Your task to perform on an android device: Open calendar and show me the fourth week of next month Image 0: 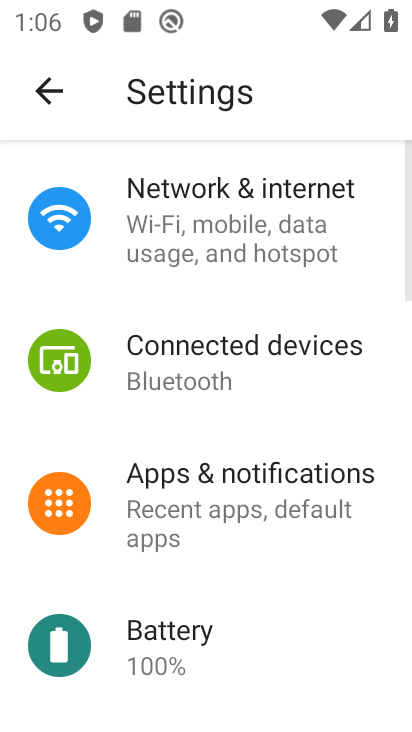
Step 0: press home button
Your task to perform on an android device: Open calendar and show me the fourth week of next month Image 1: 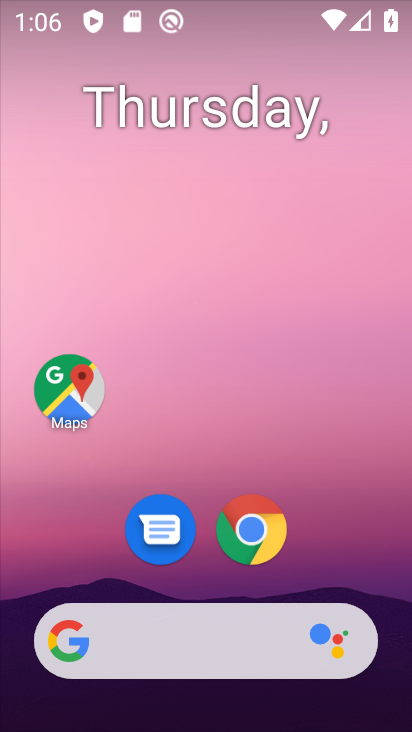
Step 1: drag from (339, 556) to (343, 186)
Your task to perform on an android device: Open calendar and show me the fourth week of next month Image 2: 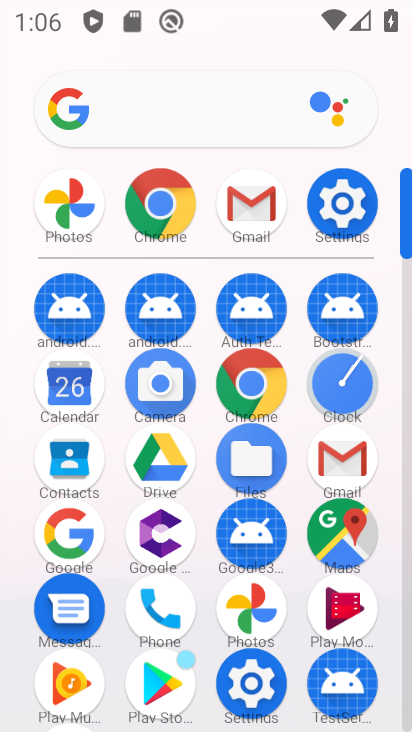
Step 2: click (70, 388)
Your task to perform on an android device: Open calendar and show me the fourth week of next month Image 3: 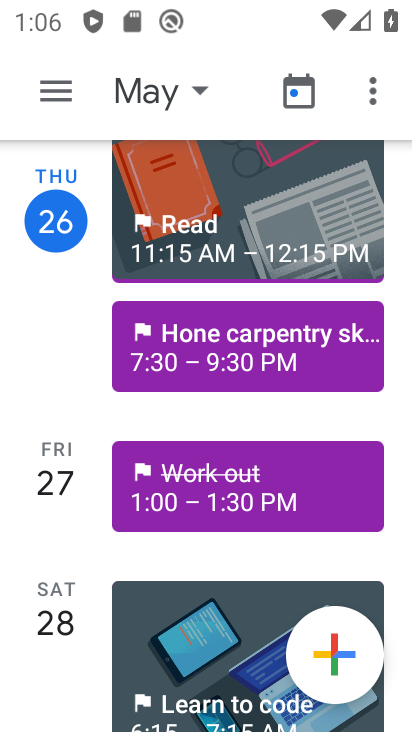
Step 3: click (170, 100)
Your task to perform on an android device: Open calendar and show me the fourth week of next month Image 4: 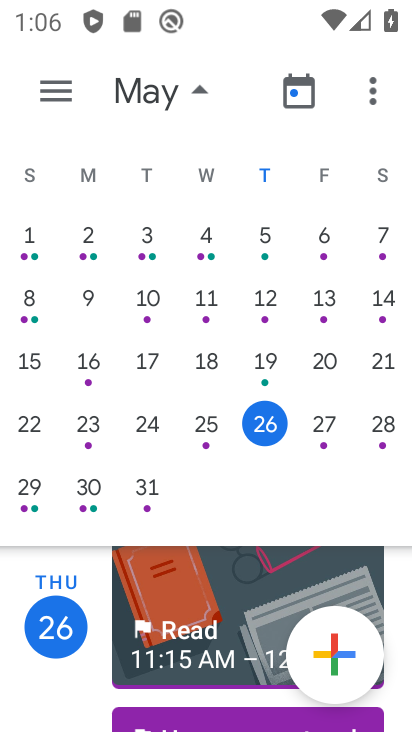
Step 4: drag from (328, 320) to (4, 324)
Your task to perform on an android device: Open calendar and show me the fourth week of next month Image 5: 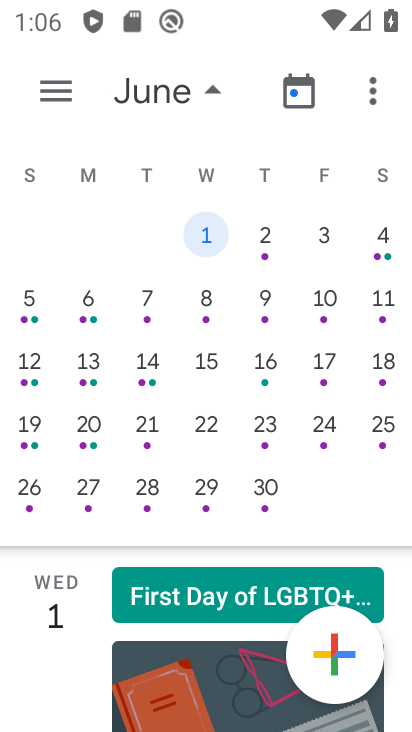
Step 5: click (33, 422)
Your task to perform on an android device: Open calendar and show me the fourth week of next month Image 6: 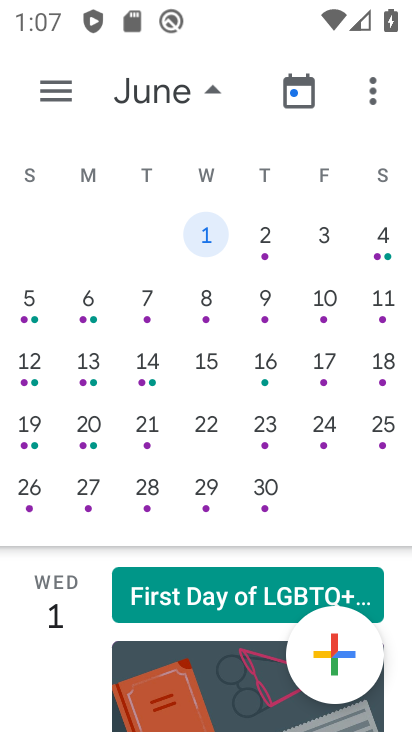
Step 6: click (37, 425)
Your task to perform on an android device: Open calendar and show me the fourth week of next month Image 7: 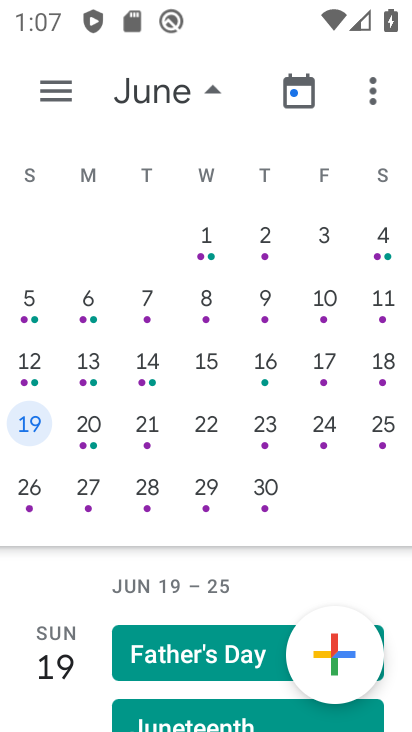
Step 7: task complete